Your task to perform on an android device: open app "Google Home" (install if not already installed) Image 0: 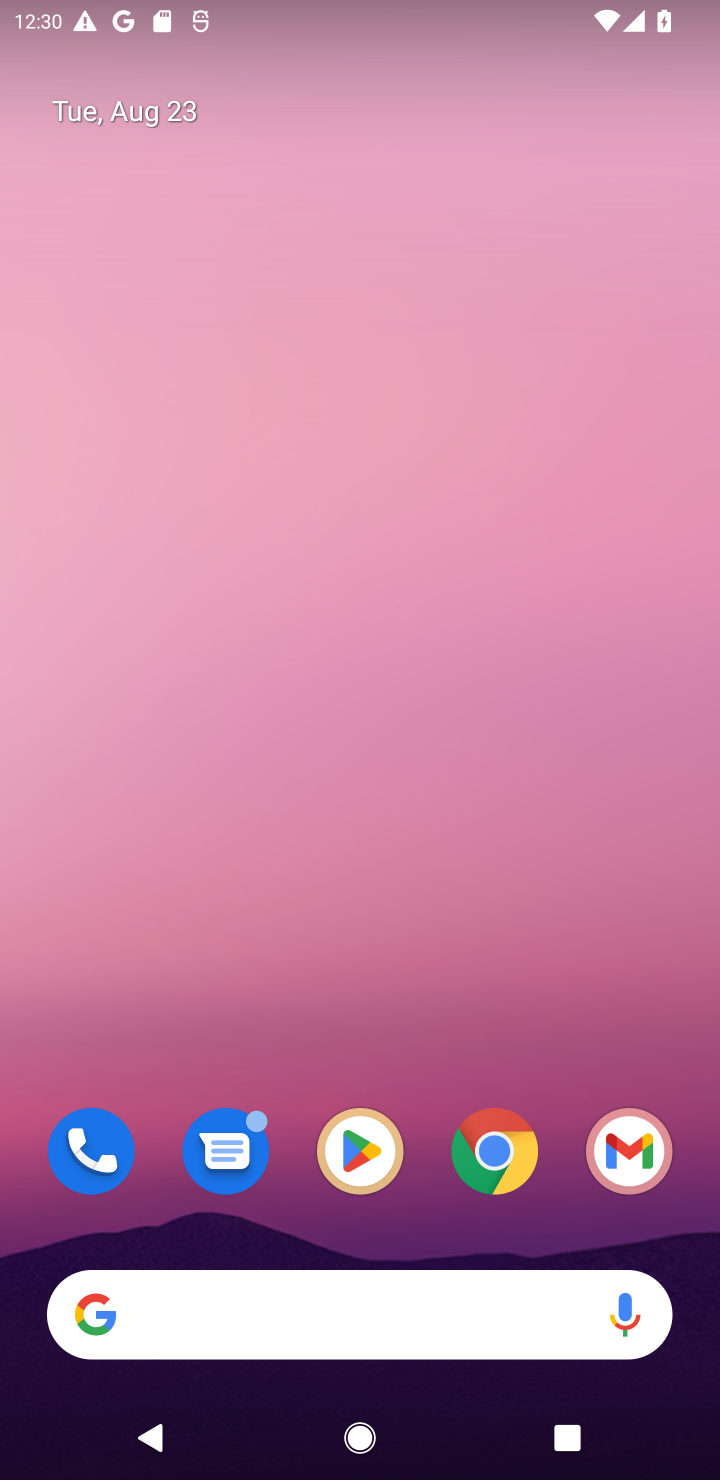
Step 0: click (337, 1126)
Your task to perform on an android device: open app "Google Home" (install if not already installed) Image 1: 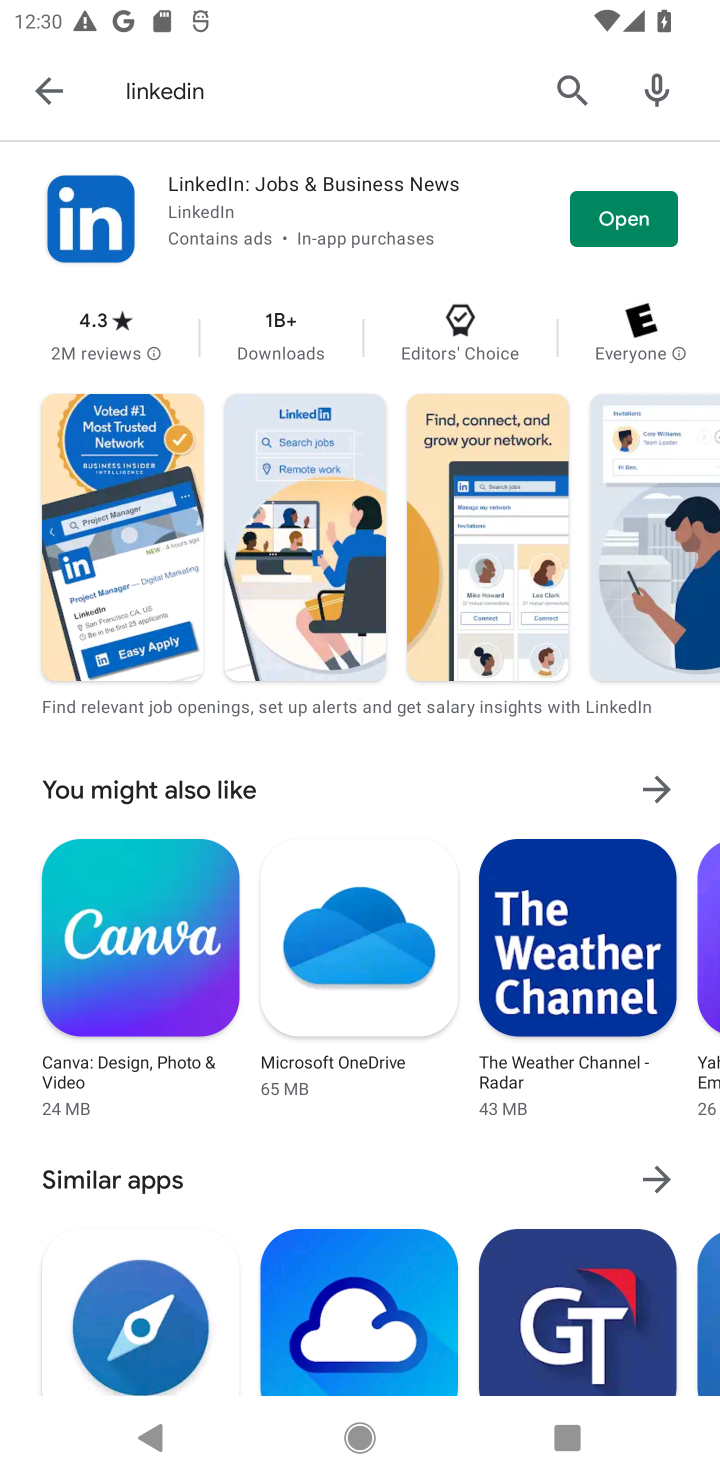
Step 1: click (579, 89)
Your task to perform on an android device: open app "Google Home" (install if not already installed) Image 2: 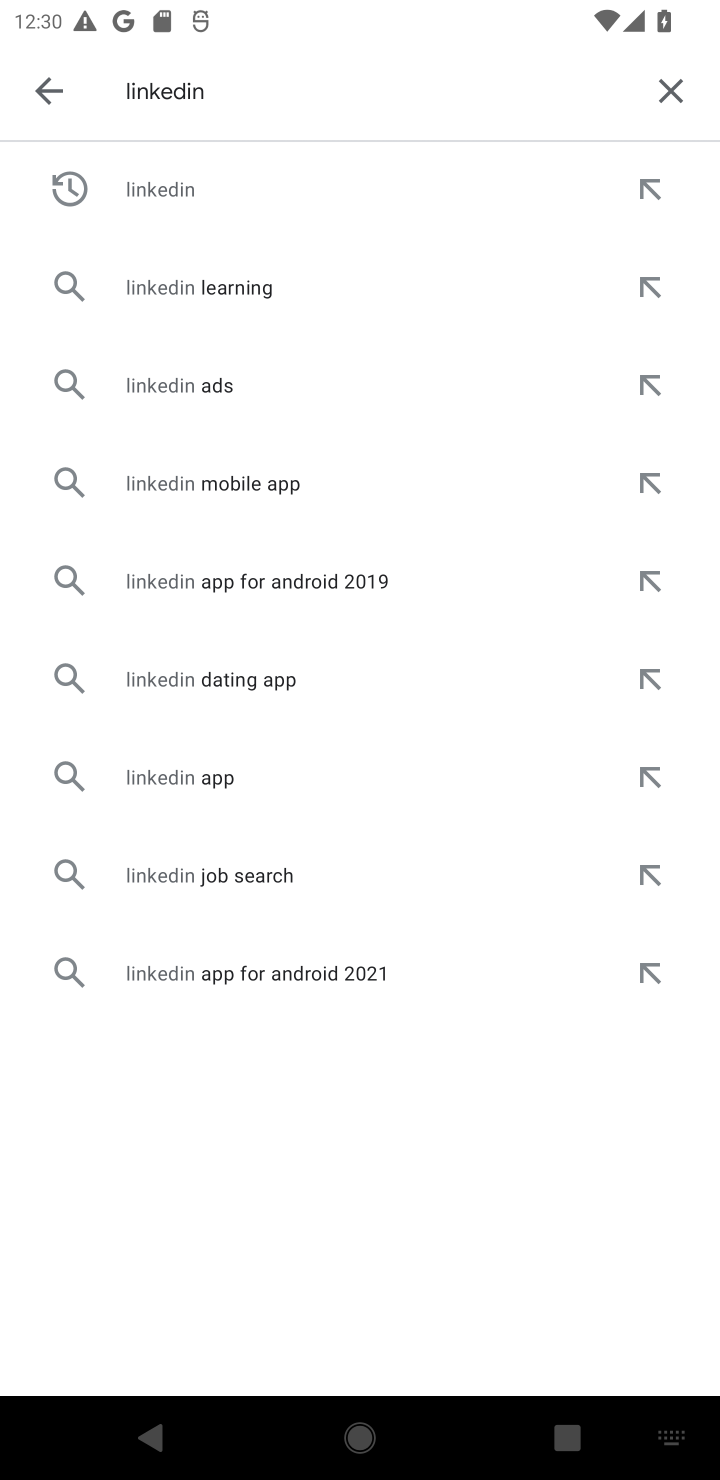
Step 2: click (660, 88)
Your task to perform on an android device: open app "Google Home" (install if not already installed) Image 3: 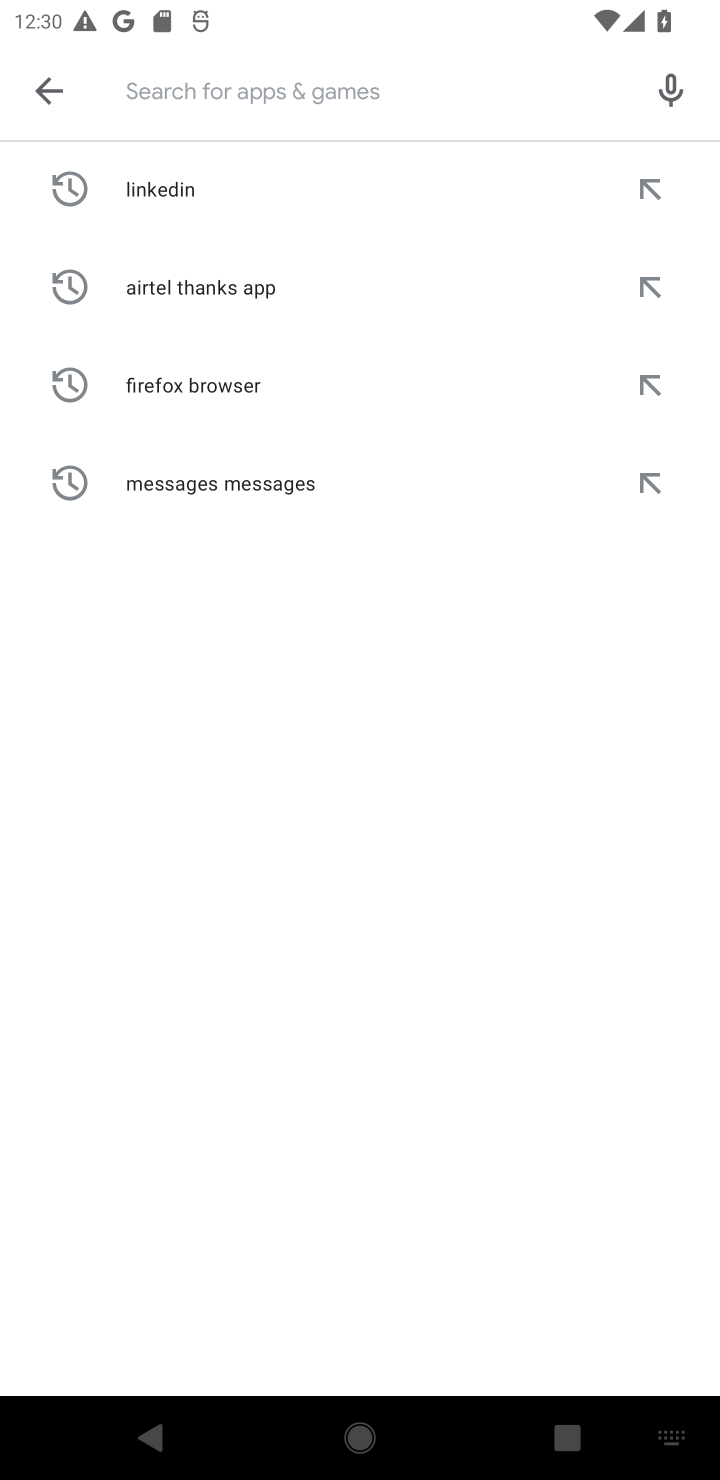
Step 3: type "Google Home"
Your task to perform on an android device: open app "Google Home" (install if not already installed) Image 4: 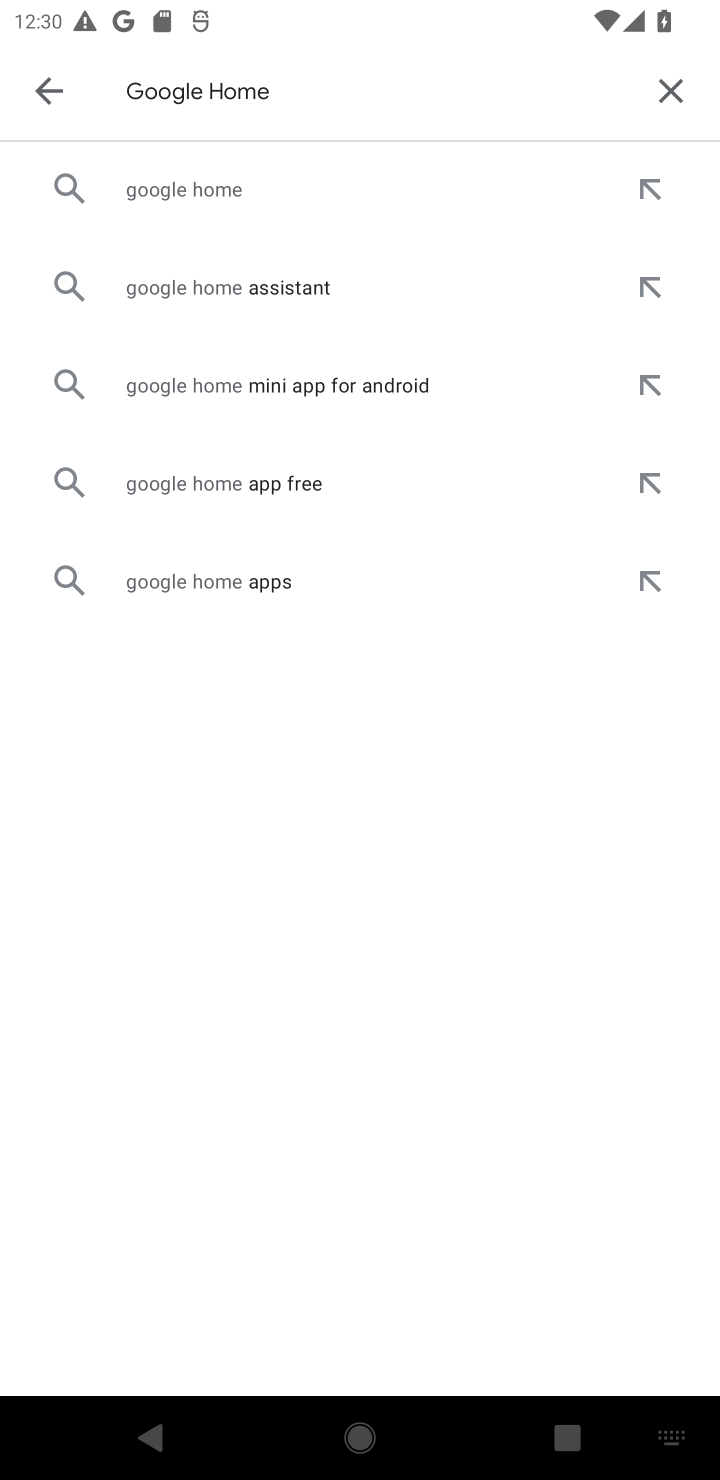
Step 4: click (279, 181)
Your task to perform on an android device: open app "Google Home" (install if not already installed) Image 5: 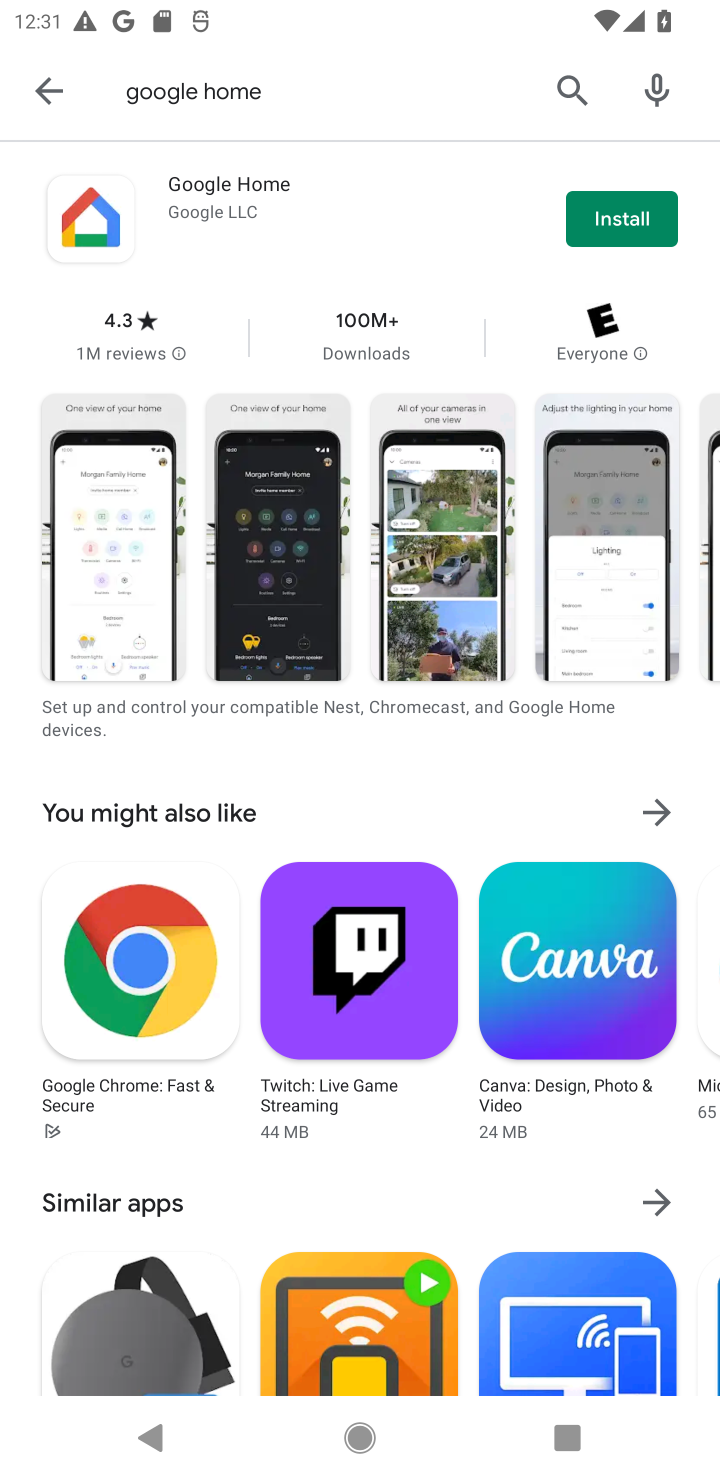
Step 5: click (636, 224)
Your task to perform on an android device: open app "Google Home" (install if not already installed) Image 6: 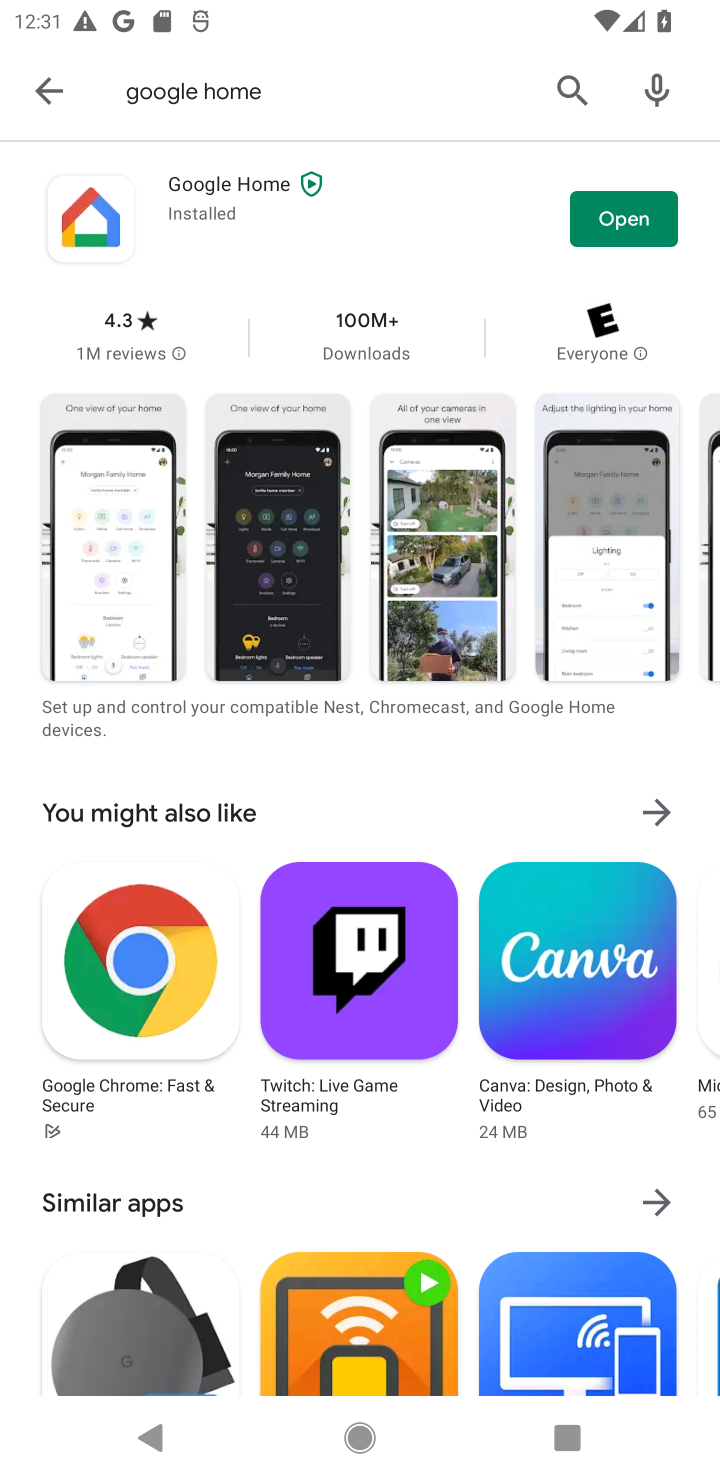
Step 6: click (636, 224)
Your task to perform on an android device: open app "Google Home" (install if not already installed) Image 7: 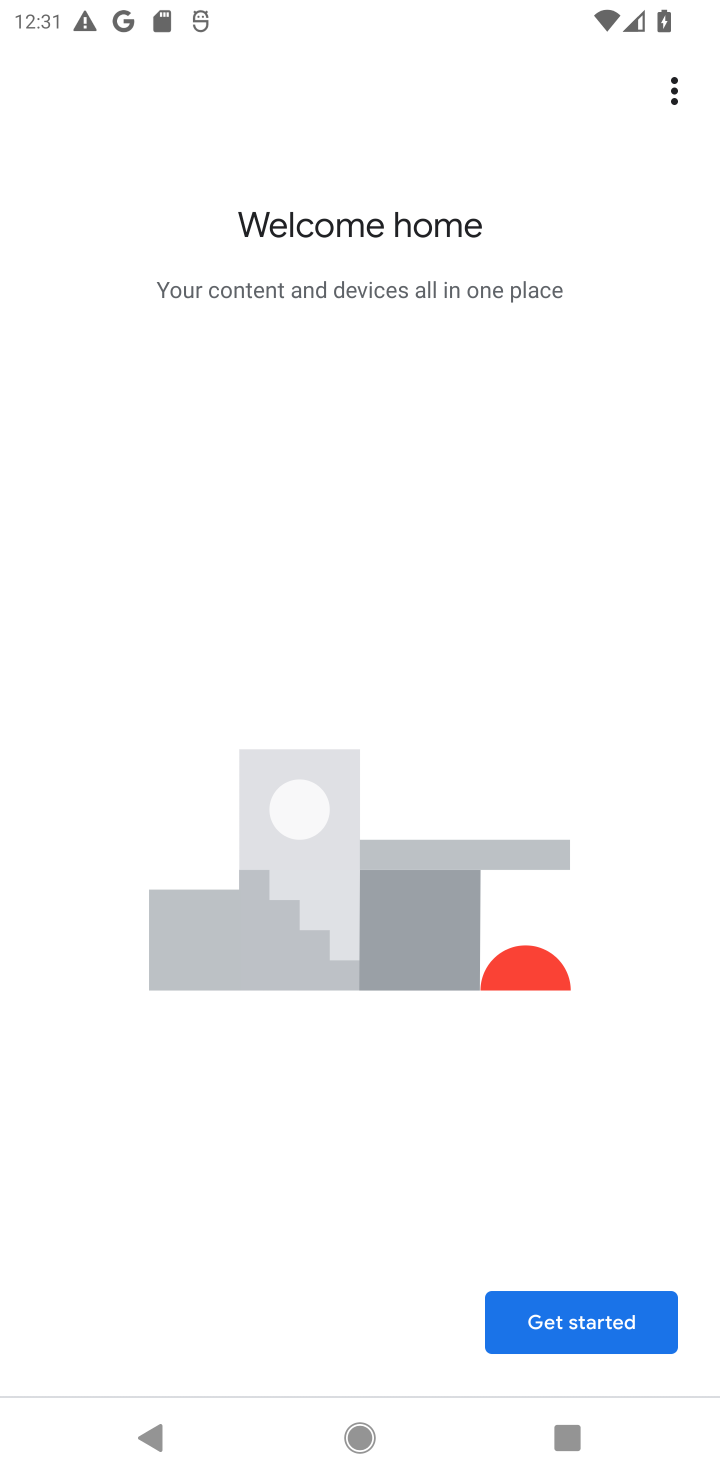
Step 7: task complete